Your task to perform on an android device: Show me productivity apps on the Play Store Image 0: 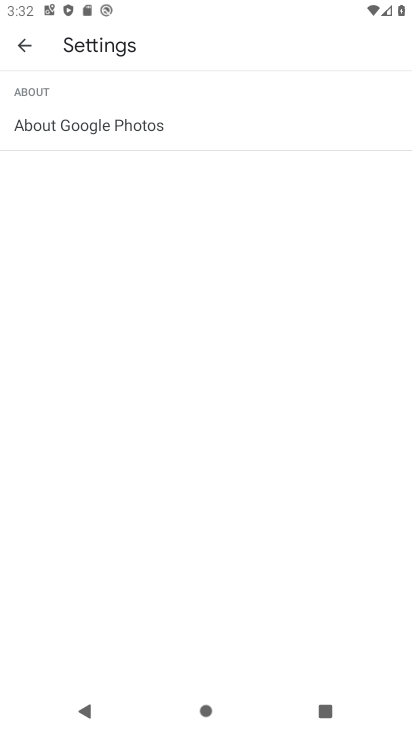
Step 0: press home button
Your task to perform on an android device: Show me productivity apps on the Play Store Image 1: 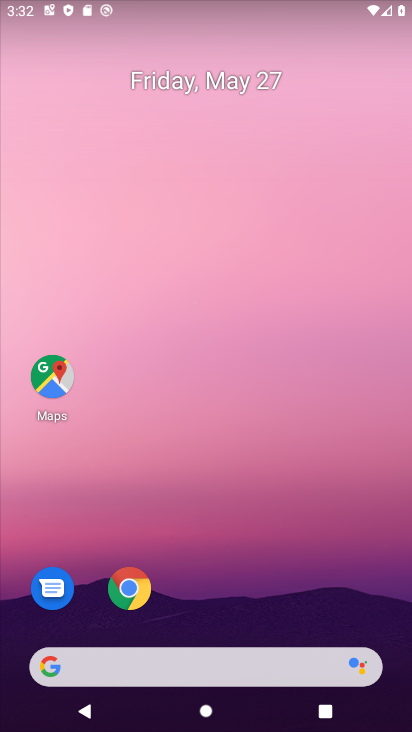
Step 1: drag from (236, 641) to (229, 114)
Your task to perform on an android device: Show me productivity apps on the Play Store Image 2: 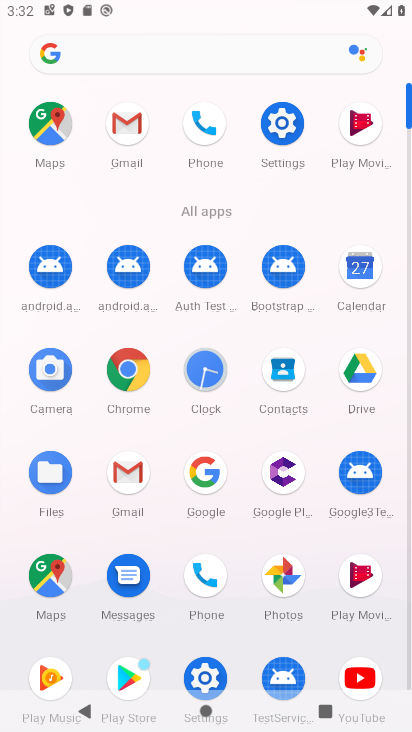
Step 2: click (126, 667)
Your task to perform on an android device: Show me productivity apps on the Play Store Image 3: 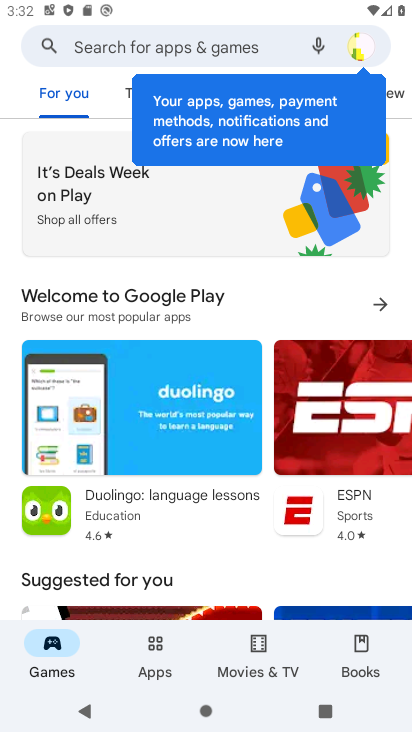
Step 3: click (156, 656)
Your task to perform on an android device: Show me productivity apps on the Play Store Image 4: 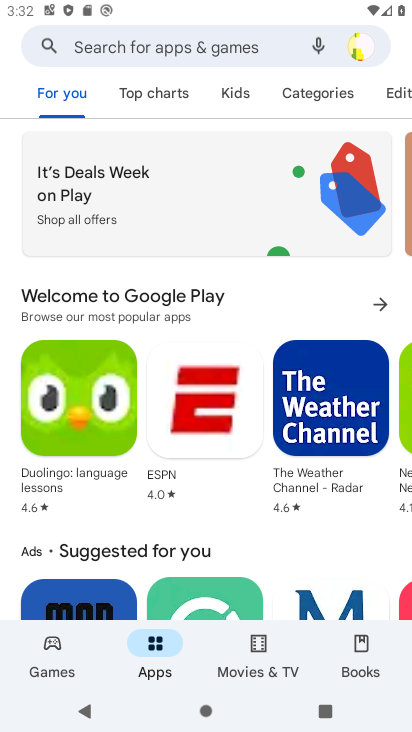
Step 4: drag from (221, 510) to (200, 334)
Your task to perform on an android device: Show me productivity apps on the Play Store Image 5: 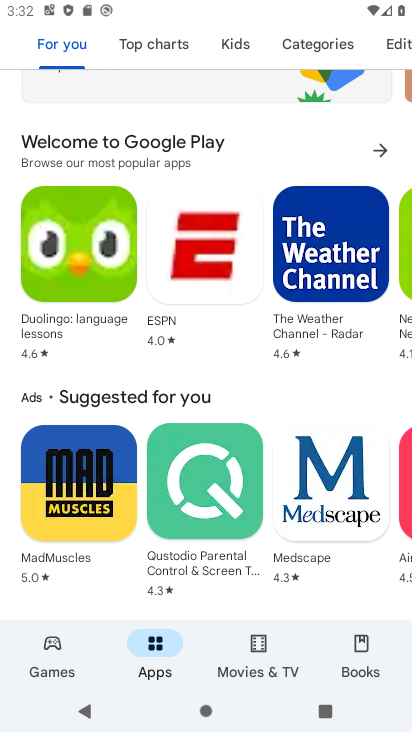
Step 5: click (330, 48)
Your task to perform on an android device: Show me productivity apps on the Play Store Image 6: 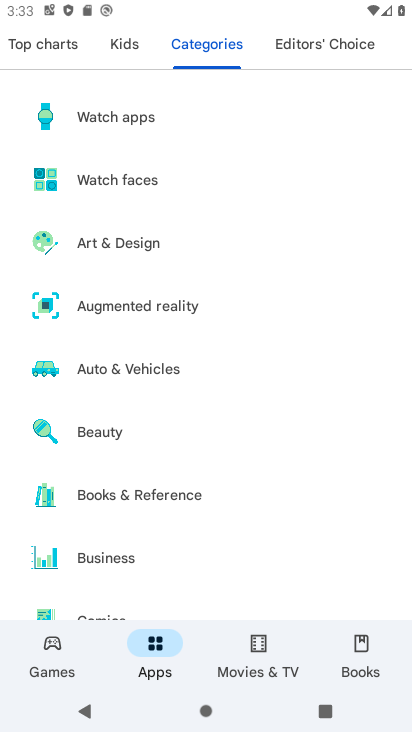
Step 6: drag from (114, 504) to (75, 102)
Your task to perform on an android device: Show me productivity apps on the Play Store Image 7: 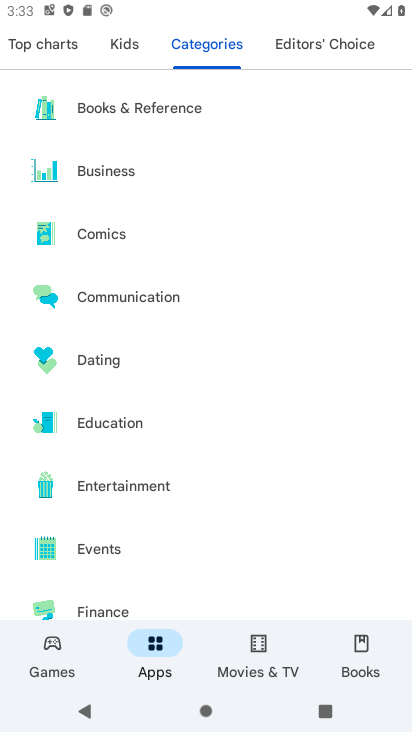
Step 7: drag from (124, 503) to (62, 34)
Your task to perform on an android device: Show me productivity apps on the Play Store Image 8: 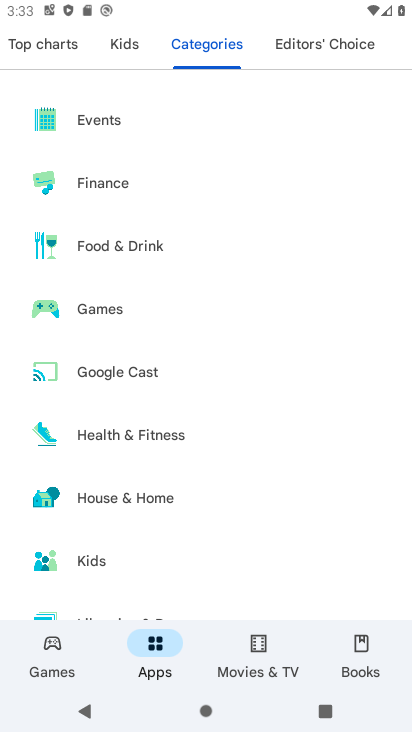
Step 8: drag from (210, 501) to (137, 11)
Your task to perform on an android device: Show me productivity apps on the Play Store Image 9: 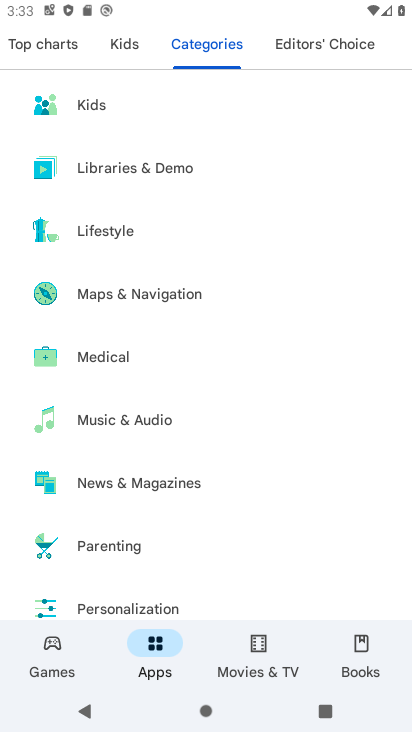
Step 9: drag from (138, 540) to (152, 81)
Your task to perform on an android device: Show me productivity apps on the Play Store Image 10: 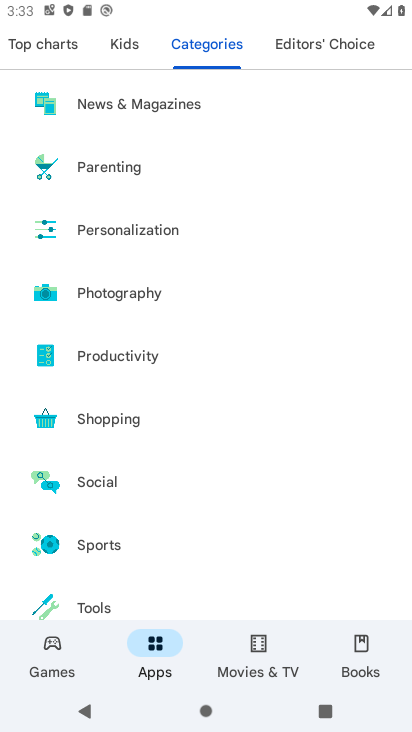
Step 10: drag from (157, 537) to (101, 149)
Your task to perform on an android device: Show me productivity apps on the Play Store Image 11: 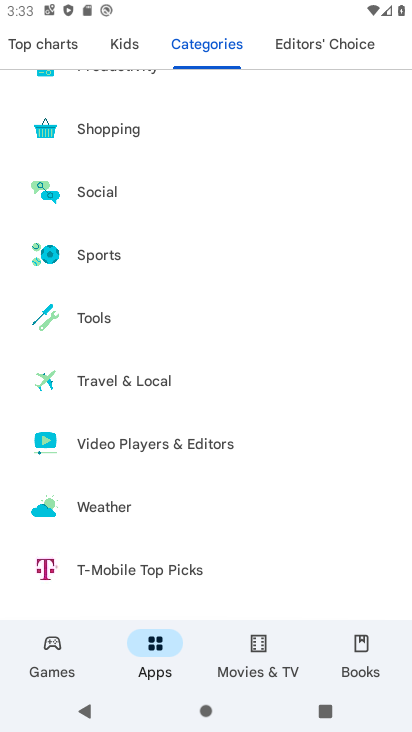
Step 11: drag from (105, 123) to (123, 261)
Your task to perform on an android device: Show me productivity apps on the Play Store Image 12: 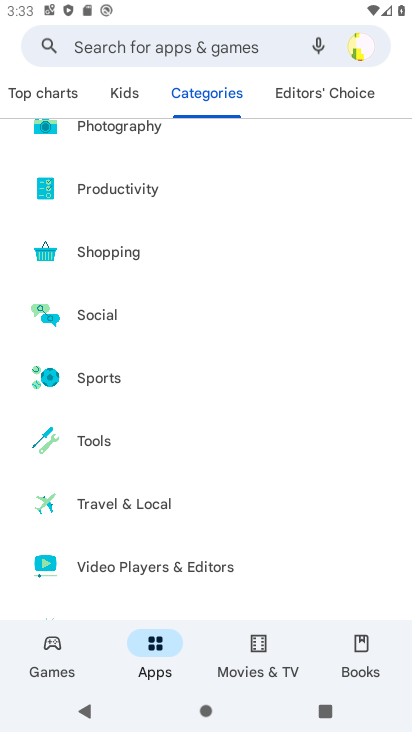
Step 12: click (106, 196)
Your task to perform on an android device: Show me productivity apps on the Play Store Image 13: 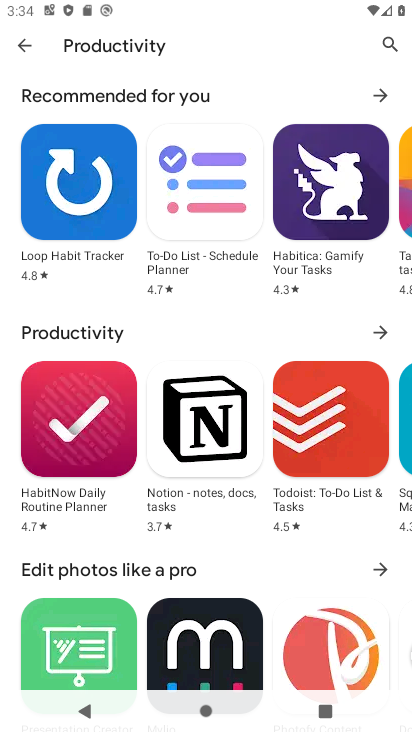
Step 13: task complete